Your task to perform on an android device: Go to battery settings Image 0: 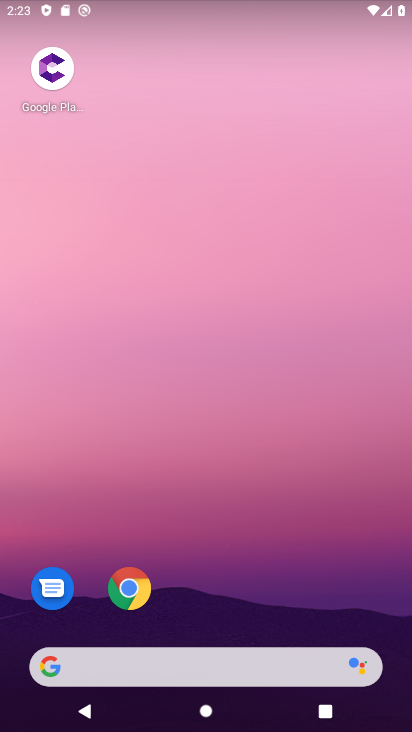
Step 0: drag from (319, 607) to (342, 83)
Your task to perform on an android device: Go to battery settings Image 1: 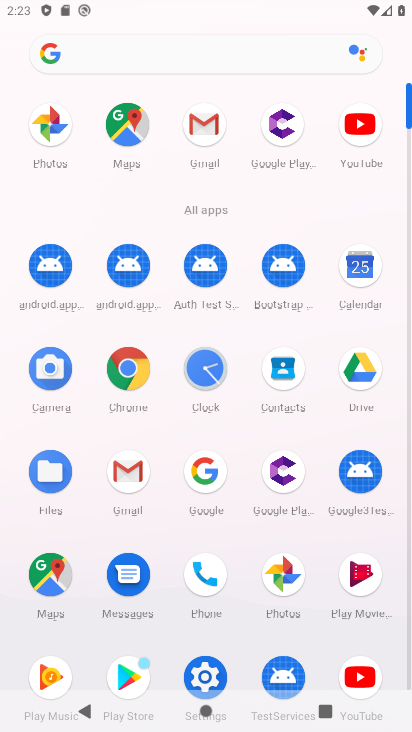
Step 1: click (196, 666)
Your task to perform on an android device: Go to battery settings Image 2: 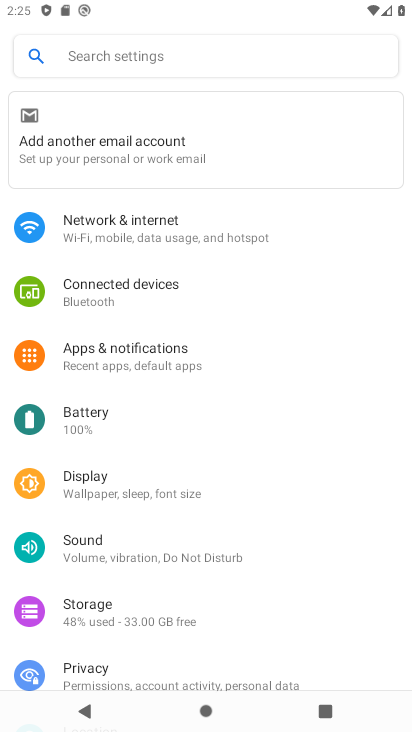
Step 2: click (85, 417)
Your task to perform on an android device: Go to battery settings Image 3: 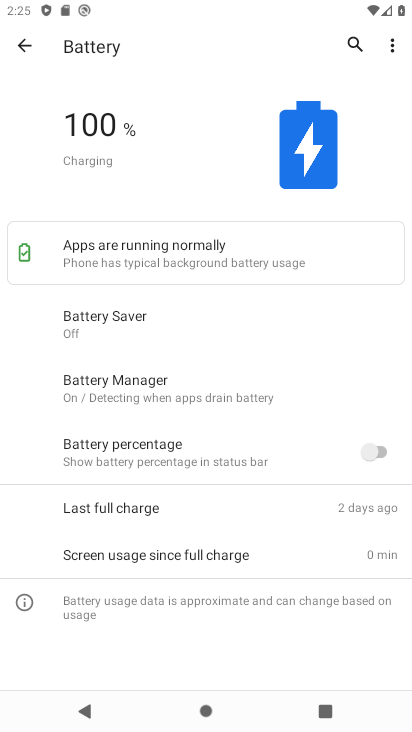
Step 3: task complete